Your task to perform on an android device: Open Amazon Image 0: 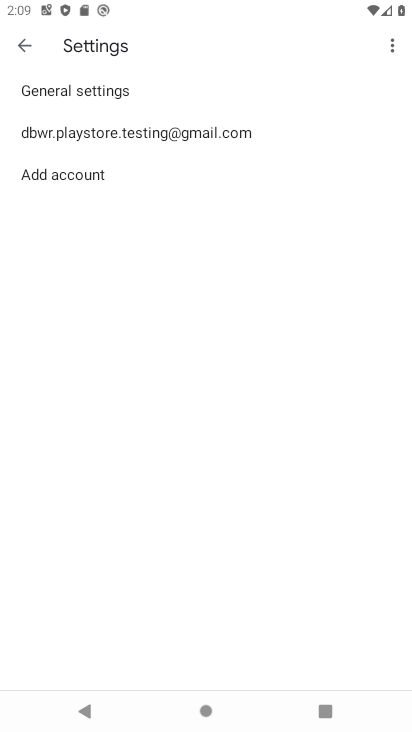
Step 0: press home button
Your task to perform on an android device: Open Amazon Image 1: 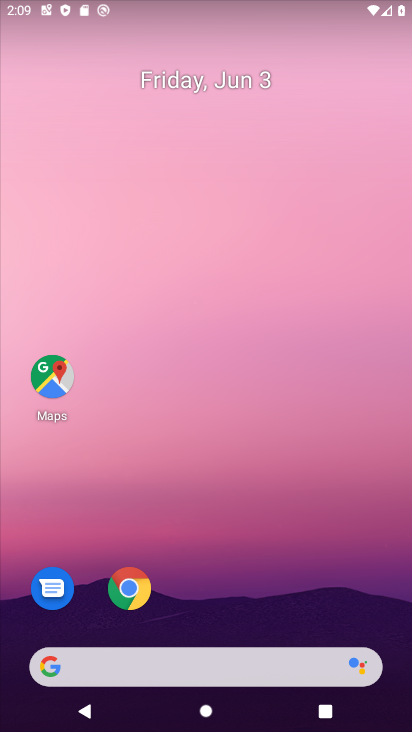
Step 1: drag from (232, 587) to (235, 73)
Your task to perform on an android device: Open Amazon Image 2: 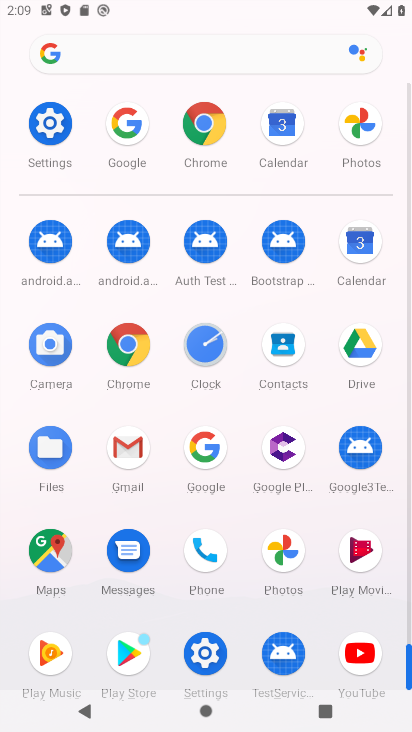
Step 2: click (132, 364)
Your task to perform on an android device: Open Amazon Image 3: 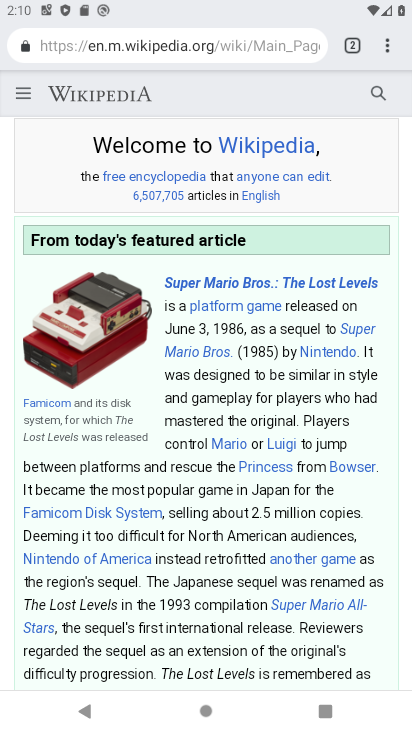
Step 3: click (364, 56)
Your task to perform on an android device: Open Amazon Image 4: 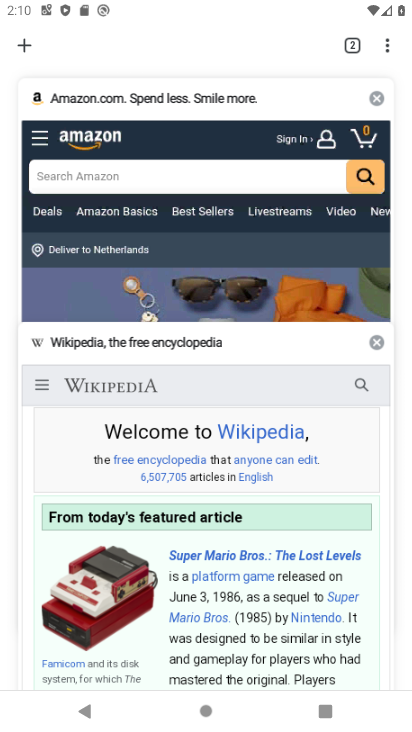
Step 4: click (31, 45)
Your task to perform on an android device: Open Amazon Image 5: 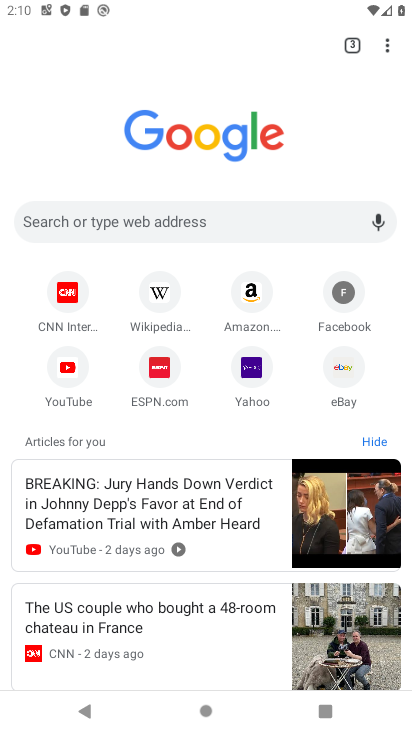
Step 5: click (236, 300)
Your task to perform on an android device: Open Amazon Image 6: 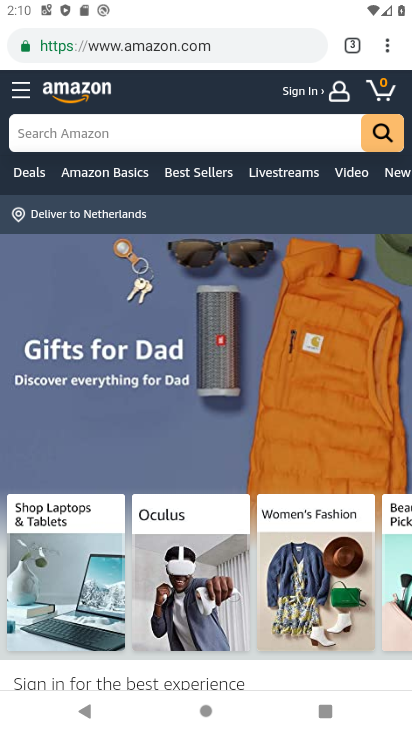
Step 6: task complete